Your task to perform on an android device: check storage Image 0: 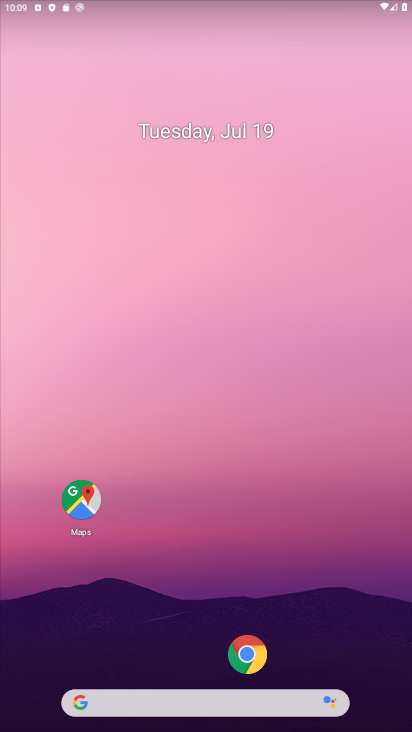
Step 0: click (244, 654)
Your task to perform on an android device: check storage Image 1: 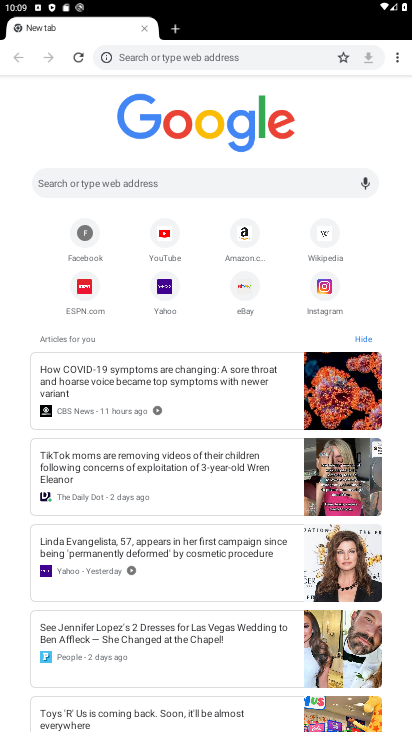
Step 1: drag from (279, 15) to (257, 654)
Your task to perform on an android device: check storage Image 2: 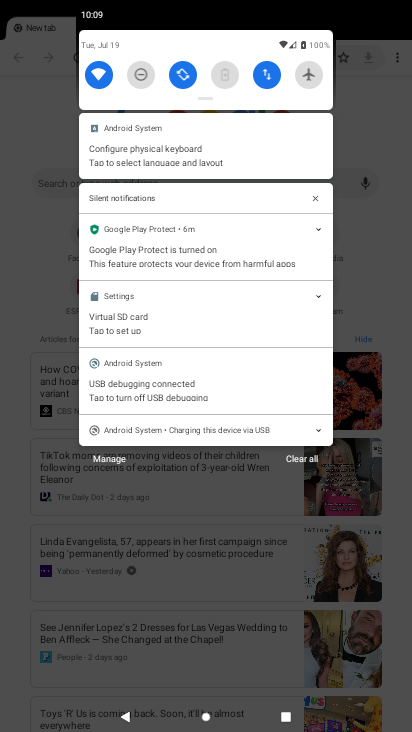
Step 2: drag from (182, 53) to (157, 691)
Your task to perform on an android device: check storage Image 3: 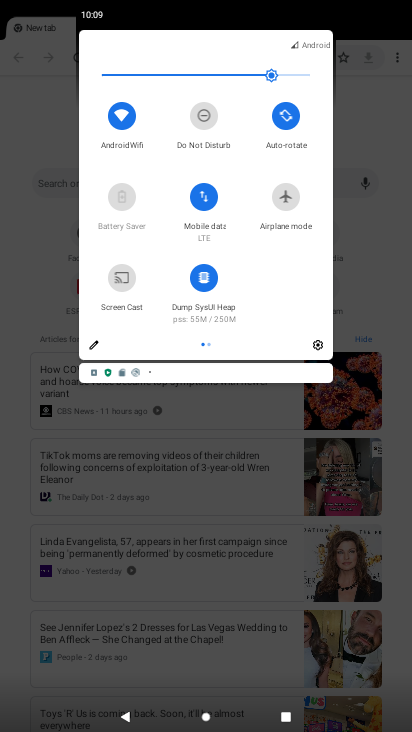
Step 3: click (317, 345)
Your task to perform on an android device: check storage Image 4: 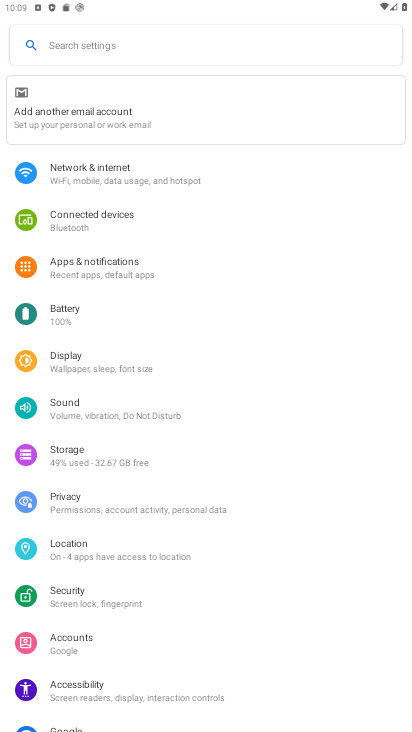
Step 4: click (86, 466)
Your task to perform on an android device: check storage Image 5: 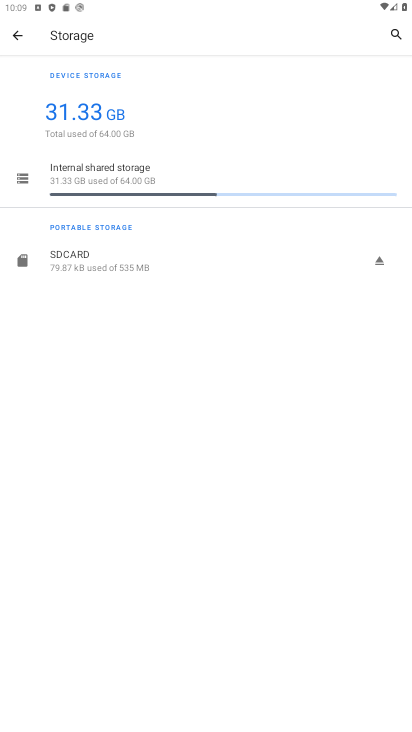
Step 5: task complete